Your task to perform on an android device: Open Yahoo.com Image 0: 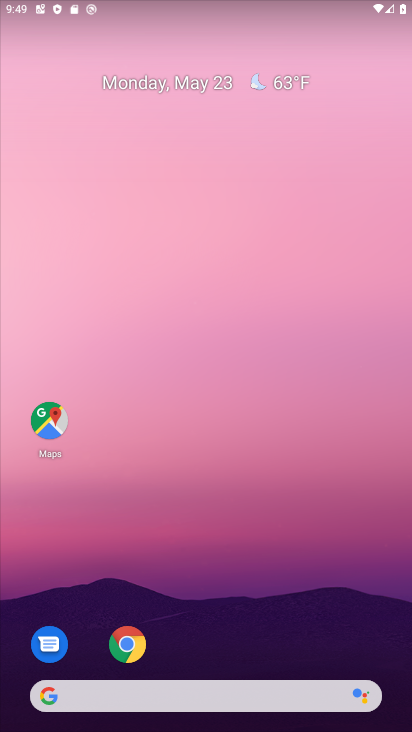
Step 0: press home button
Your task to perform on an android device: Open Yahoo.com Image 1: 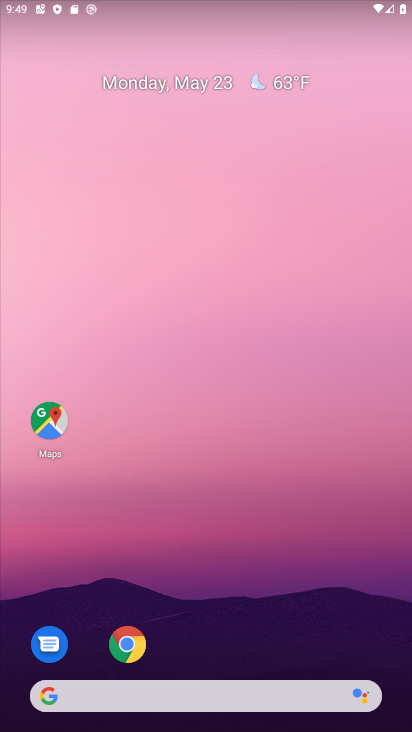
Step 1: click (127, 641)
Your task to perform on an android device: Open Yahoo.com Image 2: 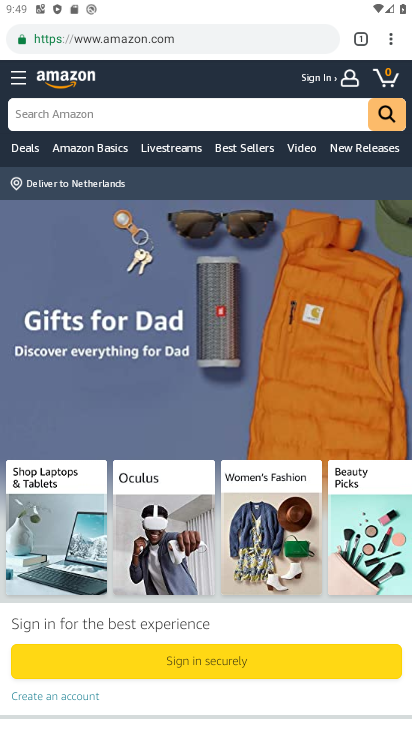
Step 2: click (357, 34)
Your task to perform on an android device: Open Yahoo.com Image 3: 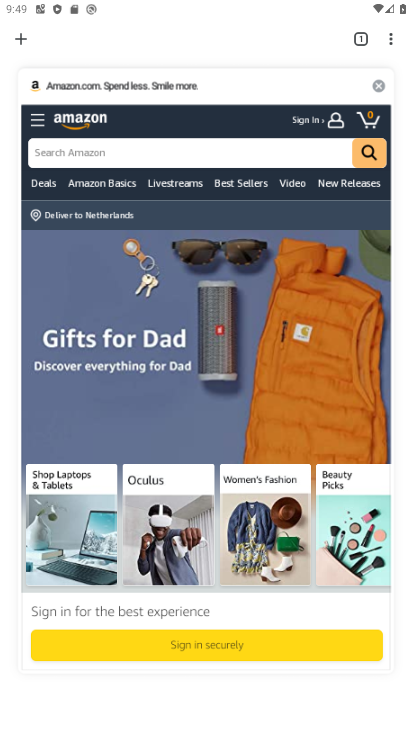
Step 3: click (380, 81)
Your task to perform on an android device: Open Yahoo.com Image 4: 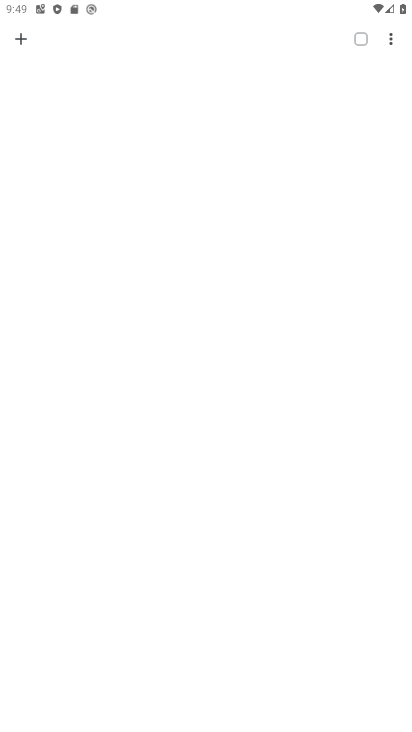
Step 4: click (22, 39)
Your task to perform on an android device: Open Yahoo.com Image 5: 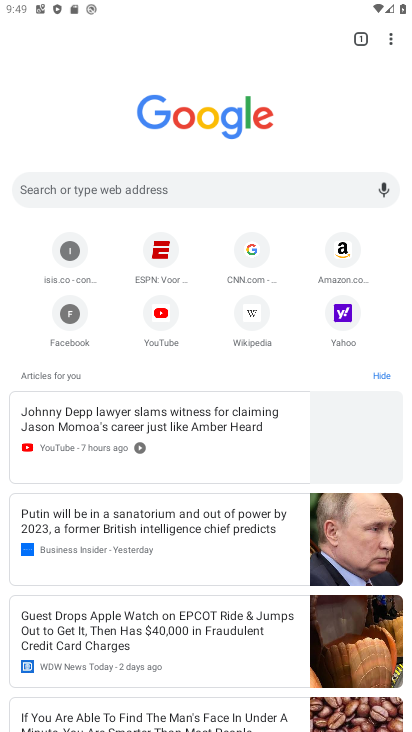
Step 5: click (339, 304)
Your task to perform on an android device: Open Yahoo.com Image 6: 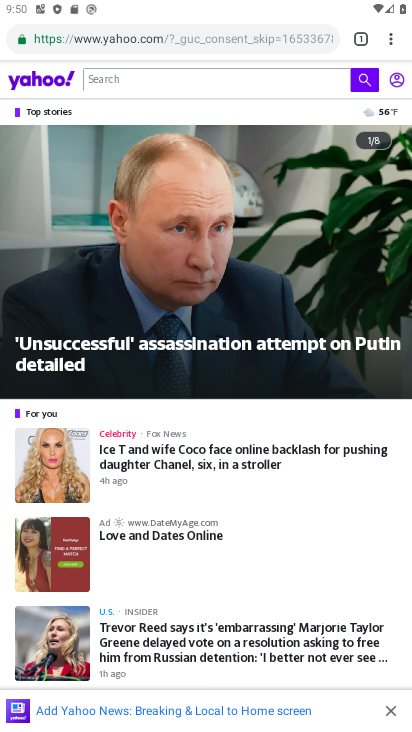
Step 6: task complete